Your task to perform on an android device: set an alarm Image 0: 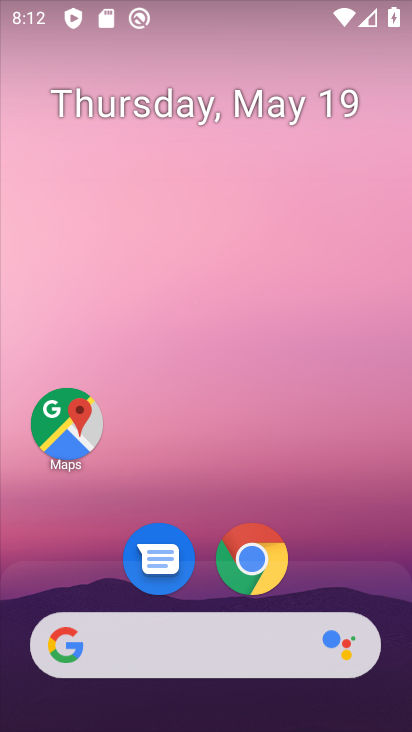
Step 0: drag from (361, 527) to (288, 88)
Your task to perform on an android device: set an alarm Image 1: 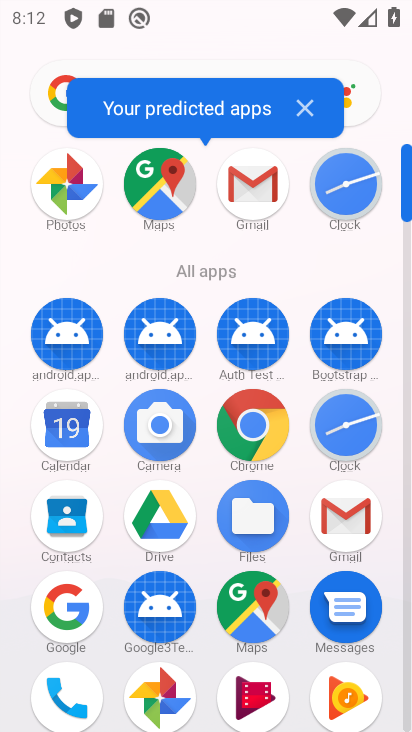
Step 1: click (357, 451)
Your task to perform on an android device: set an alarm Image 2: 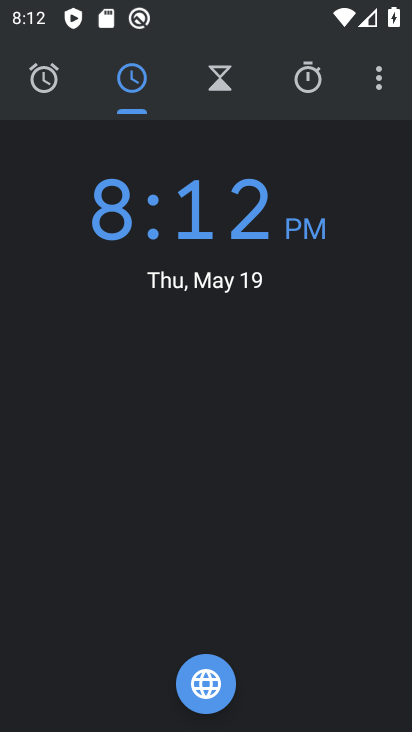
Step 2: click (64, 76)
Your task to perform on an android device: set an alarm Image 3: 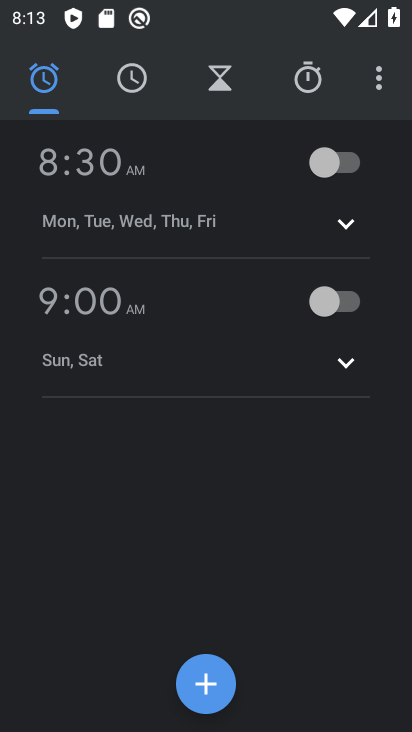
Step 3: click (196, 681)
Your task to perform on an android device: set an alarm Image 4: 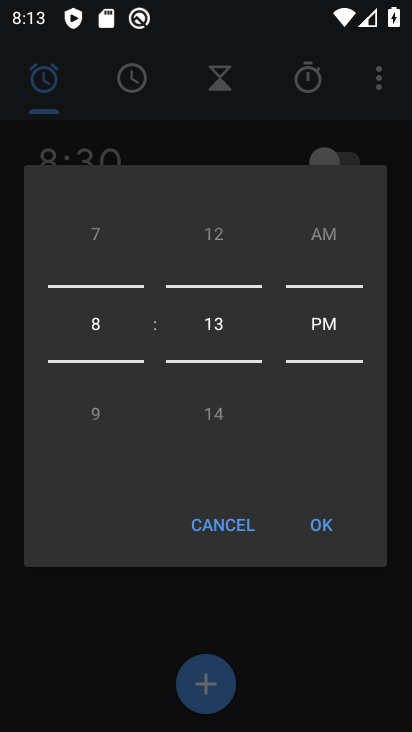
Step 4: click (330, 529)
Your task to perform on an android device: set an alarm Image 5: 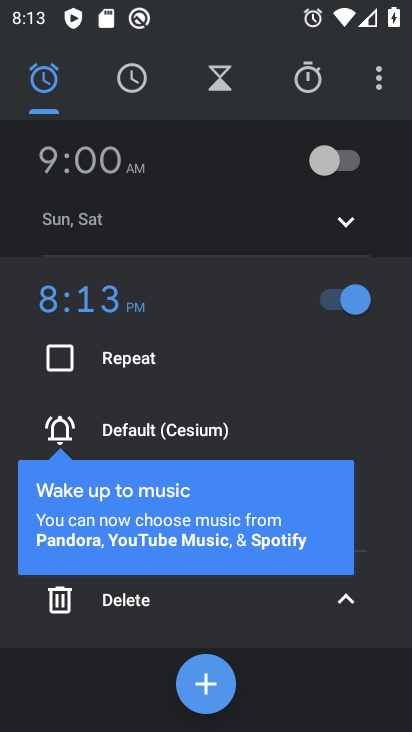
Step 5: task complete